Your task to perform on an android device: toggle javascript in the chrome app Image 0: 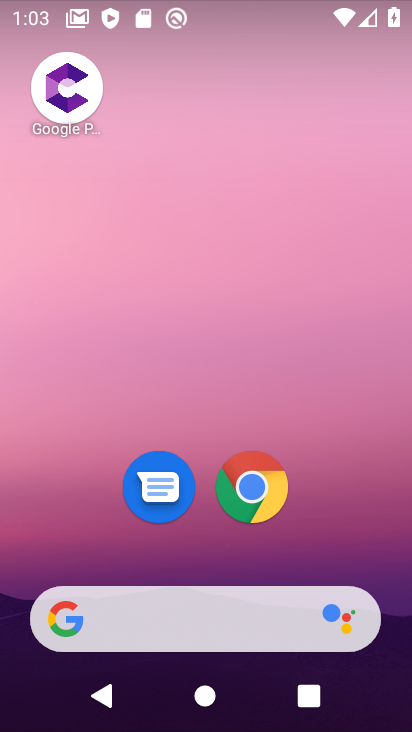
Step 0: drag from (287, 652) to (319, 157)
Your task to perform on an android device: toggle javascript in the chrome app Image 1: 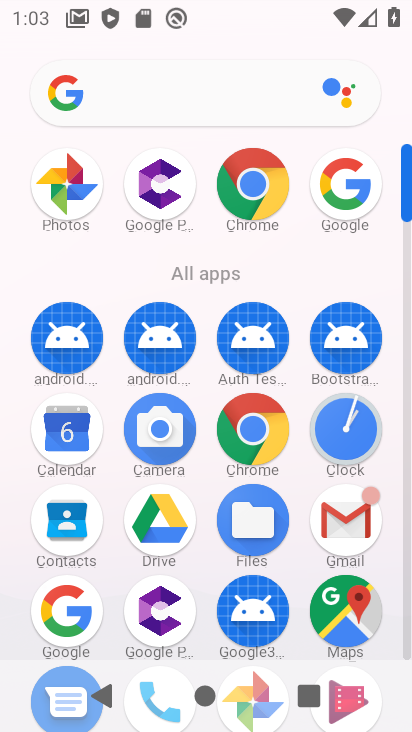
Step 1: click (250, 196)
Your task to perform on an android device: toggle javascript in the chrome app Image 2: 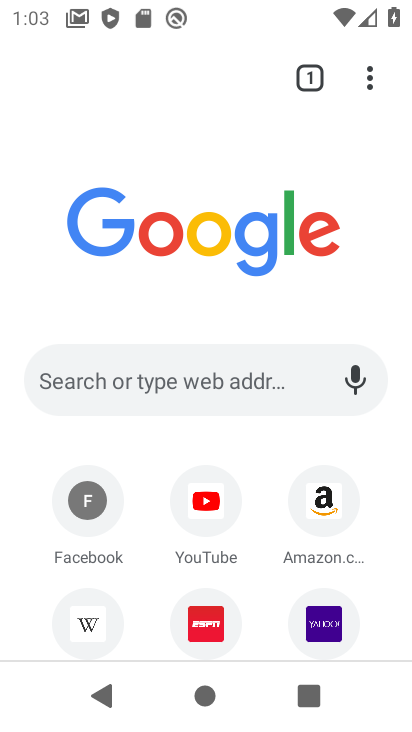
Step 2: click (359, 91)
Your task to perform on an android device: toggle javascript in the chrome app Image 3: 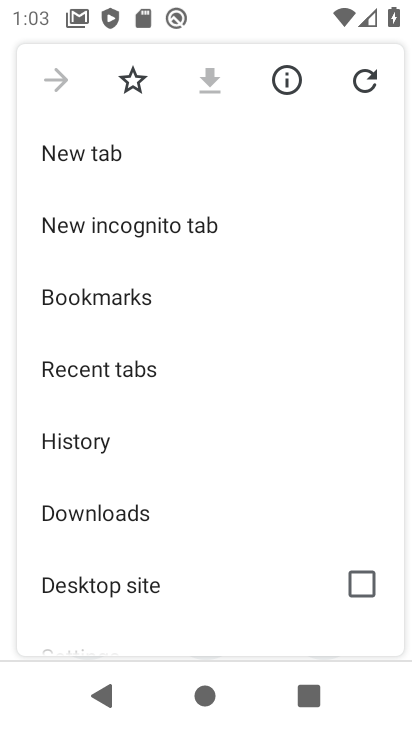
Step 3: drag from (83, 541) to (189, 33)
Your task to perform on an android device: toggle javascript in the chrome app Image 4: 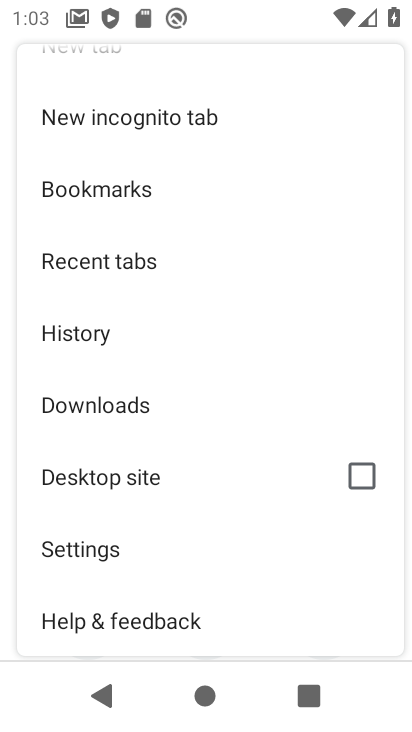
Step 4: click (104, 556)
Your task to perform on an android device: toggle javascript in the chrome app Image 5: 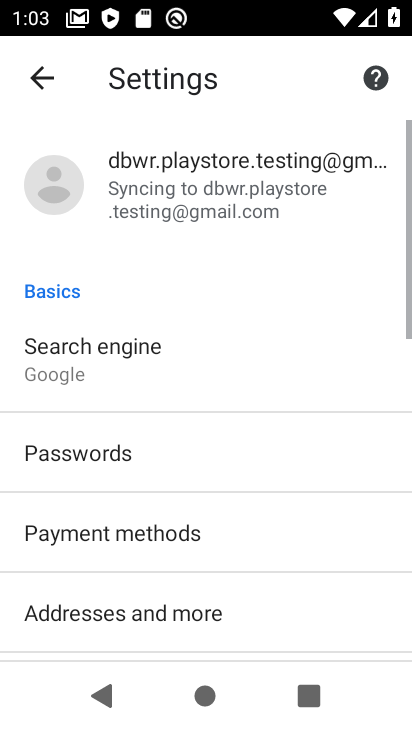
Step 5: drag from (155, 487) to (267, 54)
Your task to perform on an android device: toggle javascript in the chrome app Image 6: 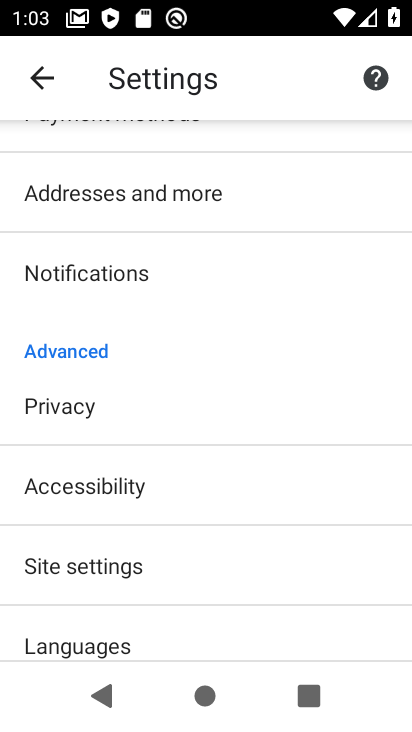
Step 6: click (114, 555)
Your task to perform on an android device: toggle javascript in the chrome app Image 7: 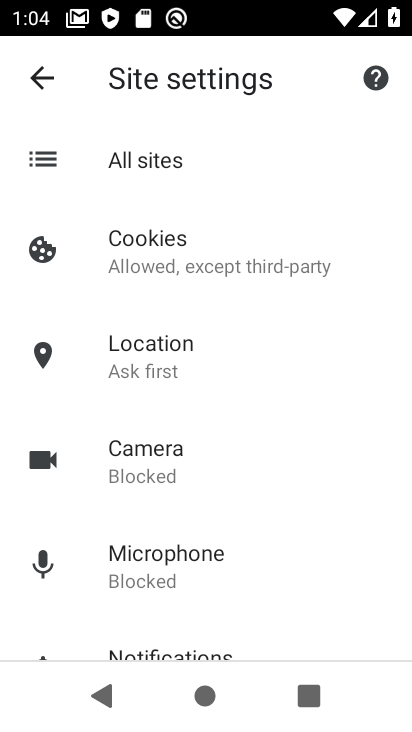
Step 7: drag from (212, 508) to (343, 249)
Your task to perform on an android device: toggle javascript in the chrome app Image 8: 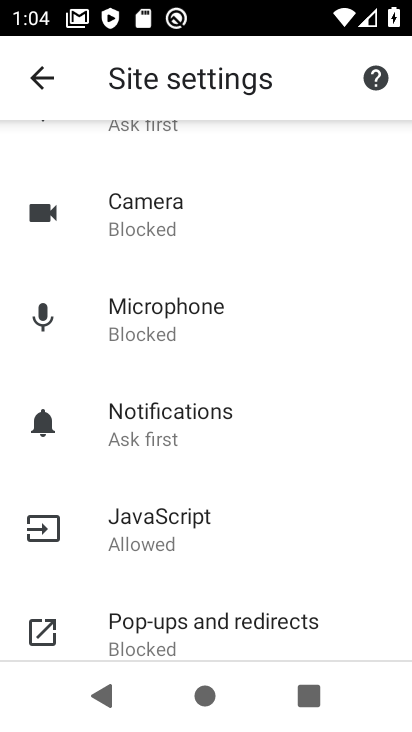
Step 8: click (237, 529)
Your task to perform on an android device: toggle javascript in the chrome app Image 9: 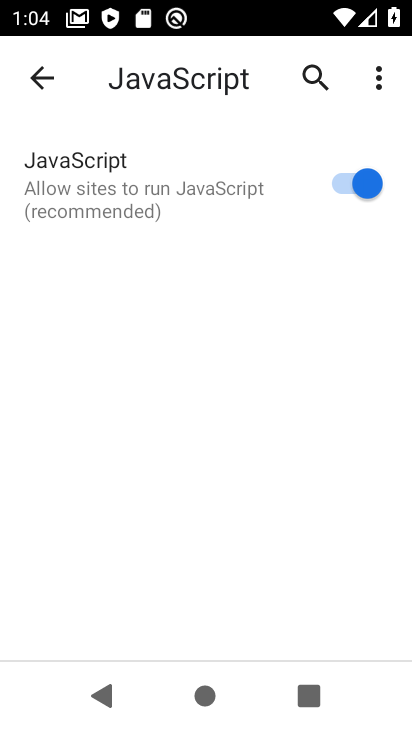
Step 9: click (327, 185)
Your task to perform on an android device: toggle javascript in the chrome app Image 10: 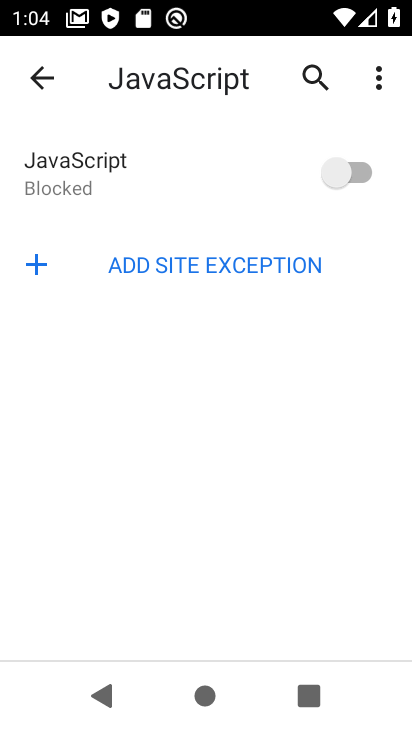
Step 10: task complete